Your task to perform on an android device: Search for seafood restaurants on Google Maps Image 0: 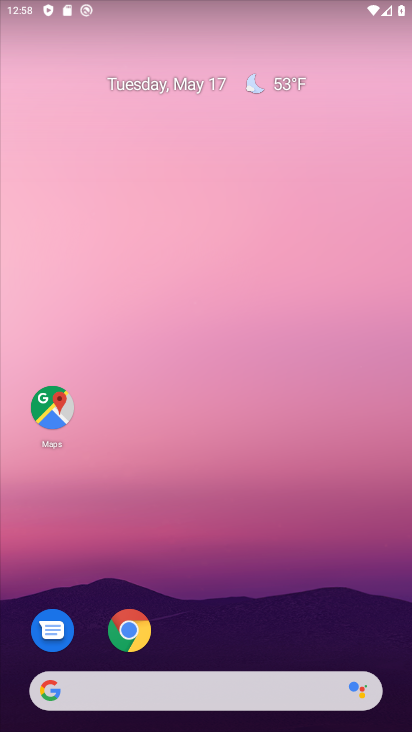
Step 0: drag from (216, 667) to (149, 260)
Your task to perform on an android device: Search for seafood restaurants on Google Maps Image 1: 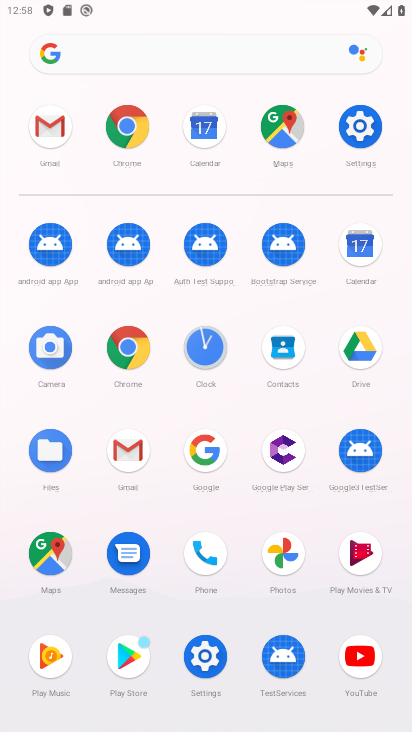
Step 1: click (42, 579)
Your task to perform on an android device: Search for seafood restaurants on Google Maps Image 2: 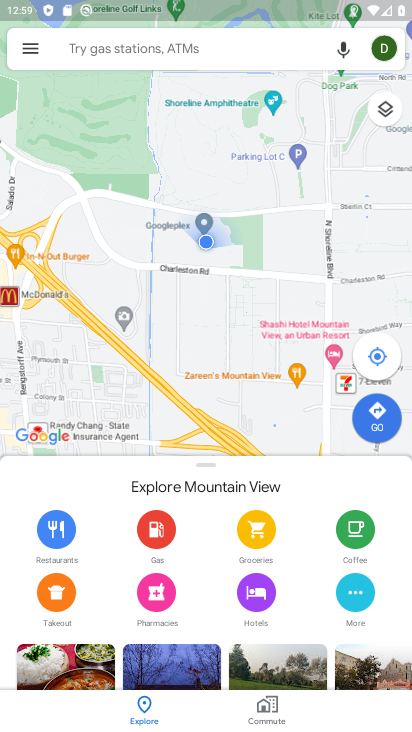
Step 2: click (192, 48)
Your task to perform on an android device: Search for seafood restaurants on Google Maps Image 3: 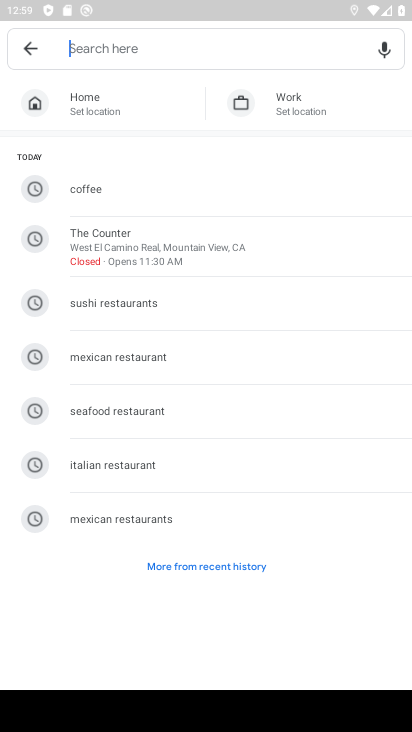
Step 3: click (160, 413)
Your task to perform on an android device: Search for seafood restaurants on Google Maps Image 4: 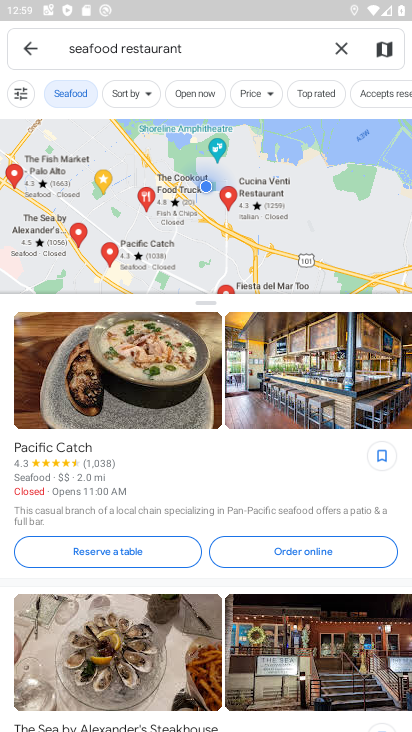
Step 4: task complete